Your task to perform on an android device: check data usage Image 0: 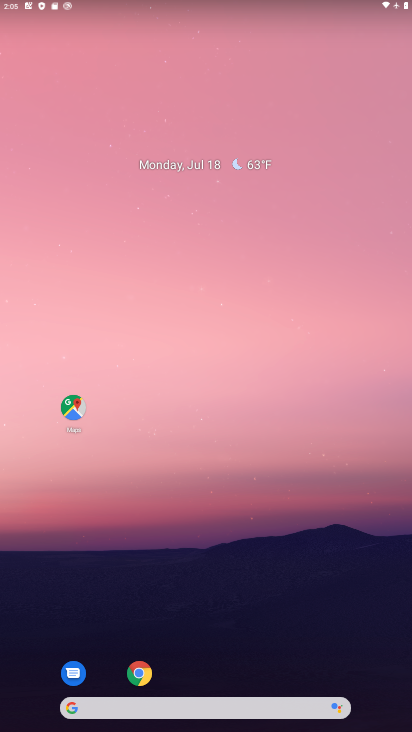
Step 0: drag from (211, 644) to (288, 315)
Your task to perform on an android device: check data usage Image 1: 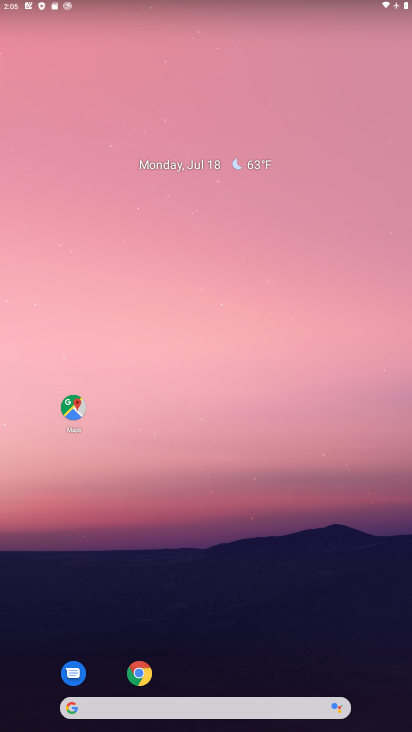
Step 1: drag from (198, 676) to (198, 226)
Your task to perform on an android device: check data usage Image 2: 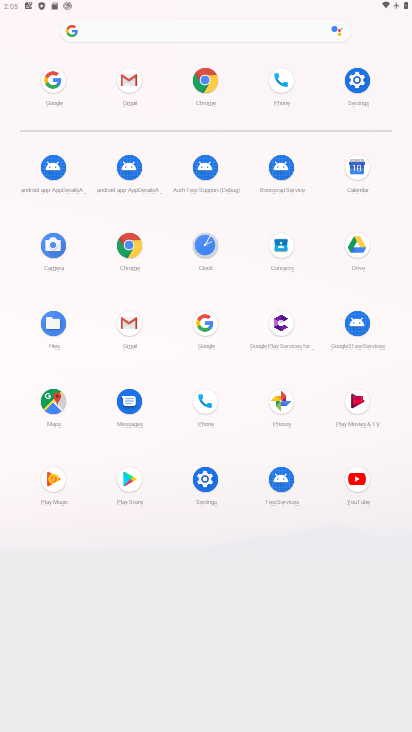
Step 2: click (353, 84)
Your task to perform on an android device: check data usage Image 3: 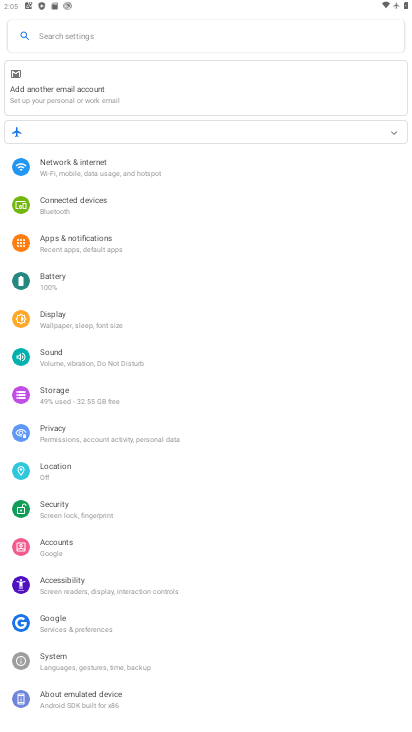
Step 3: click (67, 161)
Your task to perform on an android device: check data usage Image 4: 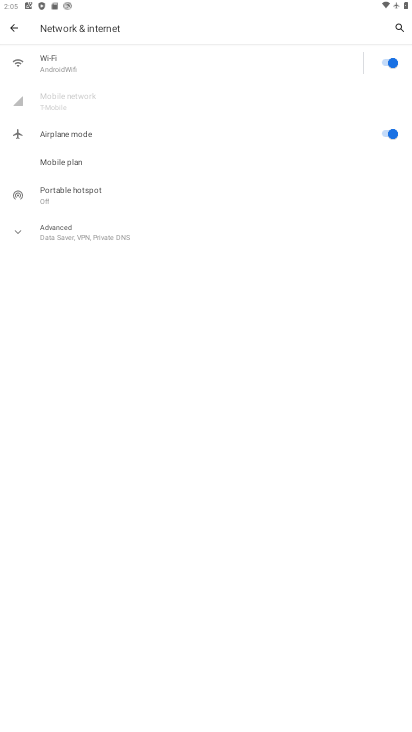
Step 4: click (84, 106)
Your task to perform on an android device: check data usage Image 5: 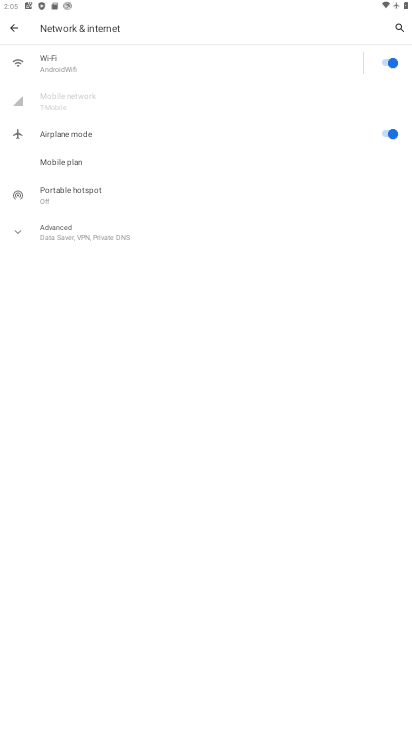
Step 5: task complete